Your task to perform on an android device: Open maps Image 0: 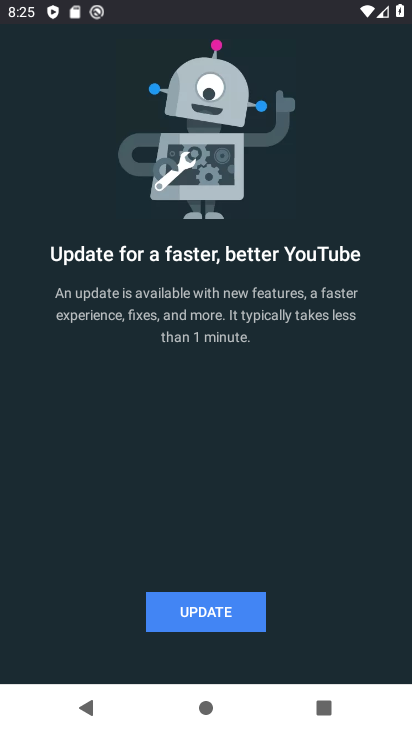
Step 0: press home button
Your task to perform on an android device: Open maps Image 1: 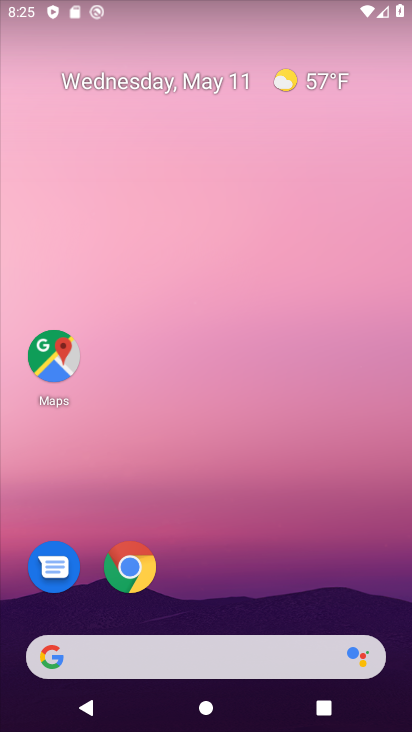
Step 1: click (48, 355)
Your task to perform on an android device: Open maps Image 2: 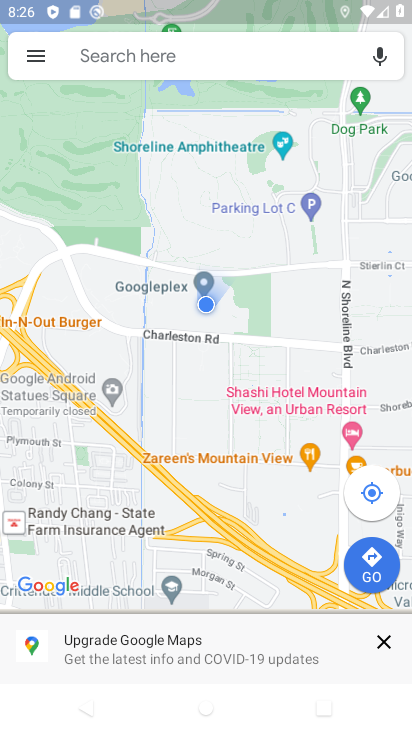
Step 2: task complete